Your task to perform on an android device: What's the weather going to be this weekend? Image 0: 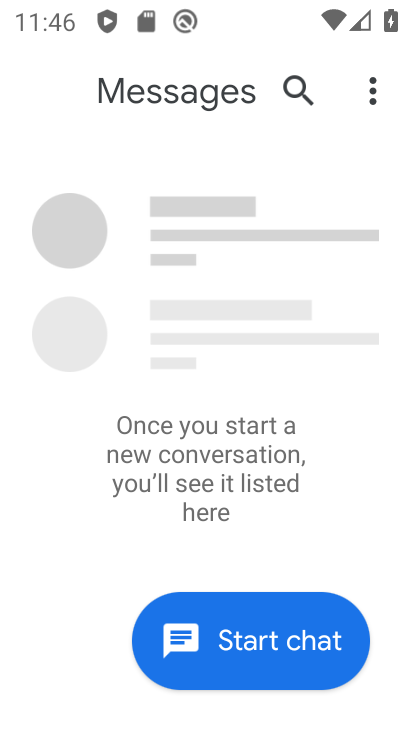
Step 0: press back button
Your task to perform on an android device: What's the weather going to be this weekend? Image 1: 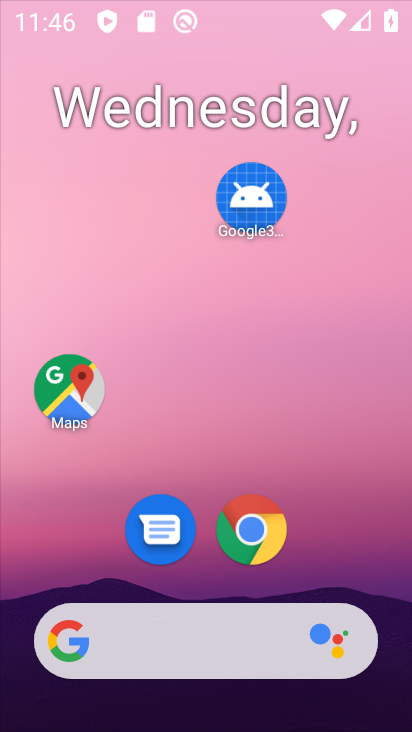
Step 1: press home button
Your task to perform on an android device: What's the weather going to be this weekend? Image 2: 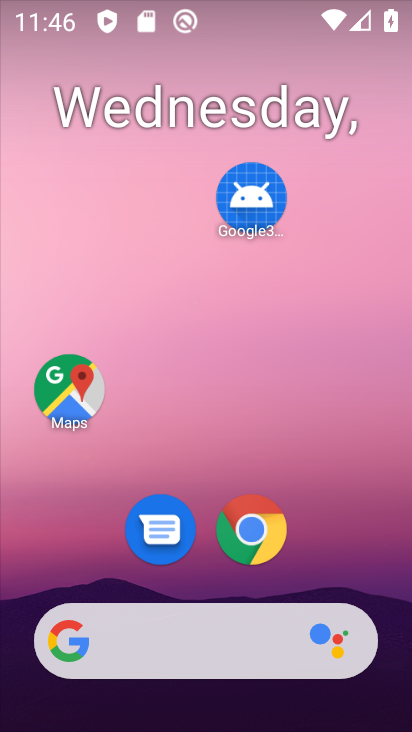
Step 2: drag from (62, 598) to (146, 82)
Your task to perform on an android device: What's the weather going to be this weekend? Image 3: 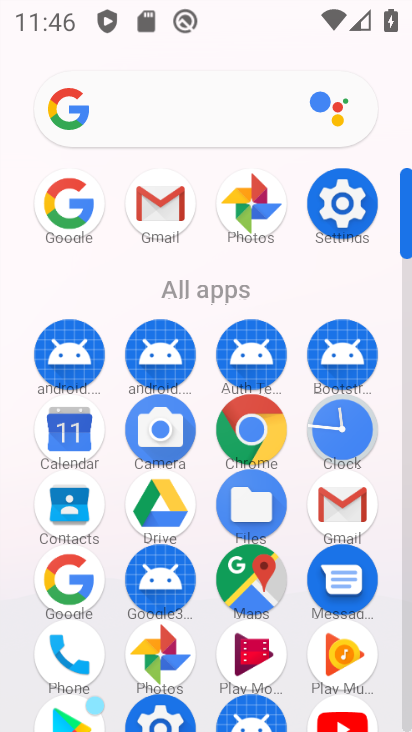
Step 3: click (74, 604)
Your task to perform on an android device: What's the weather going to be this weekend? Image 4: 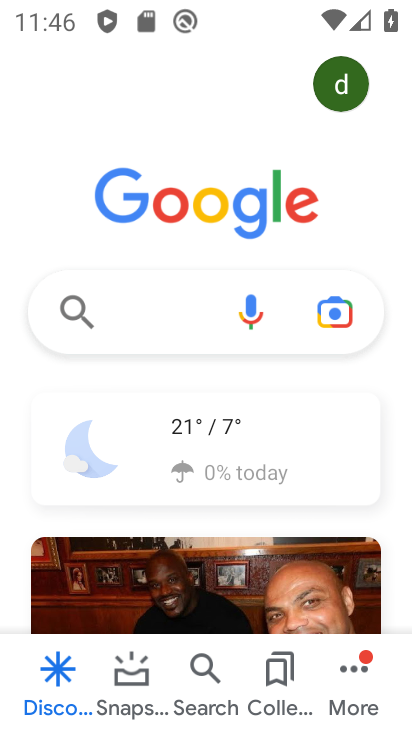
Step 4: click (157, 473)
Your task to perform on an android device: What's the weather going to be this weekend? Image 5: 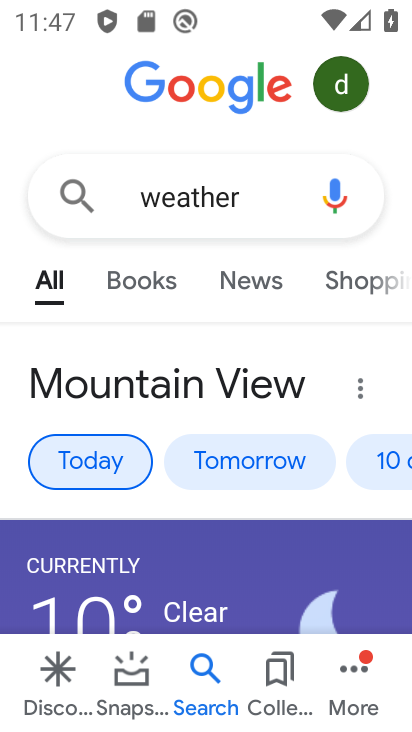
Step 5: drag from (212, 543) to (305, 253)
Your task to perform on an android device: What's the weather going to be this weekend? Image 6: 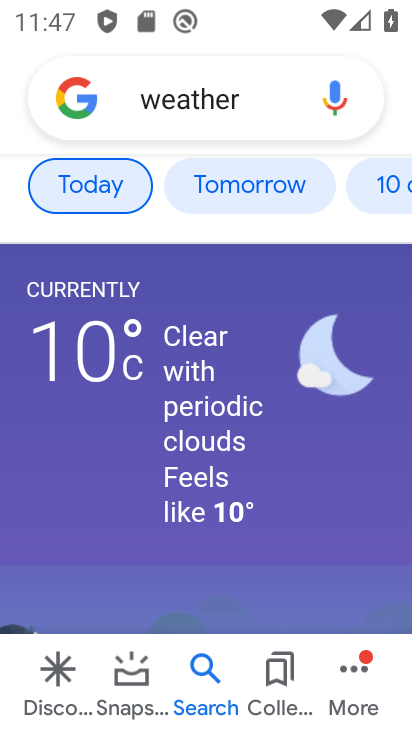
Step 6: drag from (244, 530) to (264, 377)
Your task to perform on an android device: What's the weather going to be this weekend? Image 7: 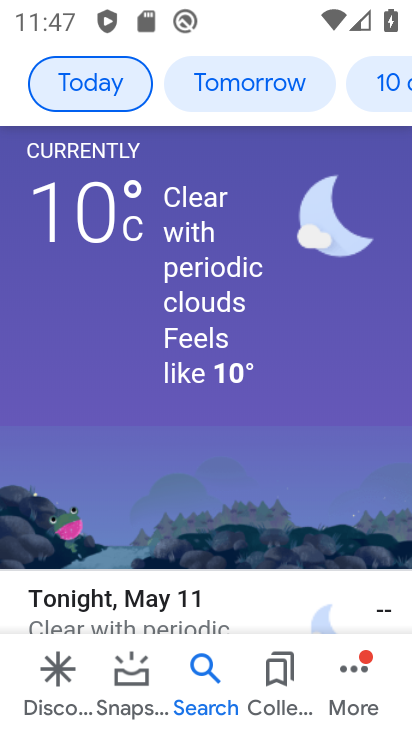
Step 7: click (250, 467)
Your task to perform on an android device: What's the weather going to be this weekend? Image 8: 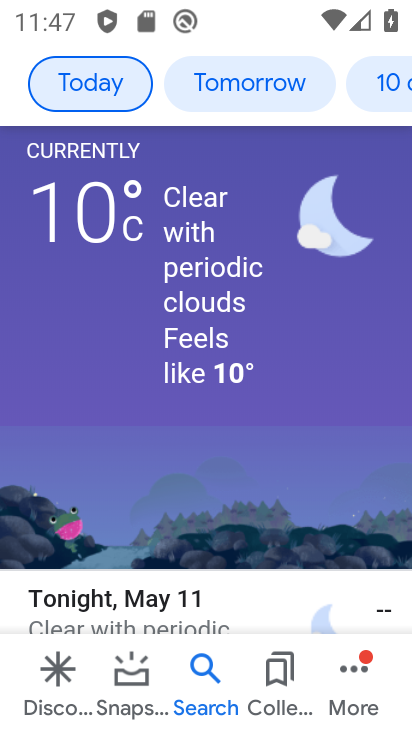
Step 8: drag from (393, 102) to (143, 82)
Your task to perform on an android device: What's the weather going to be this weekend? Image 9: 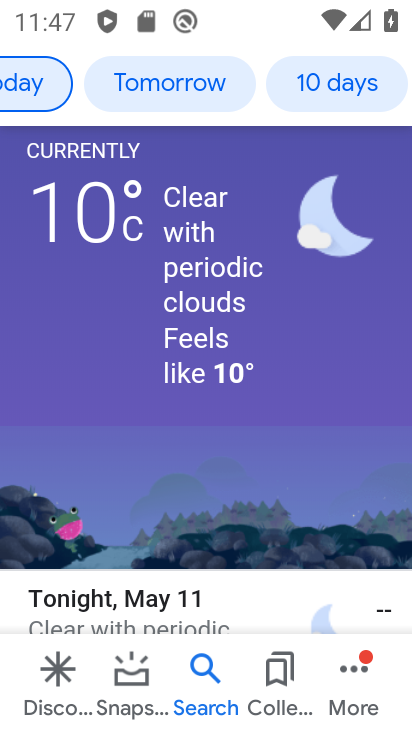
Step 9: click (266, 74)
Your task to perform on an android device: What's the weather going to be this weekend? Image 10: 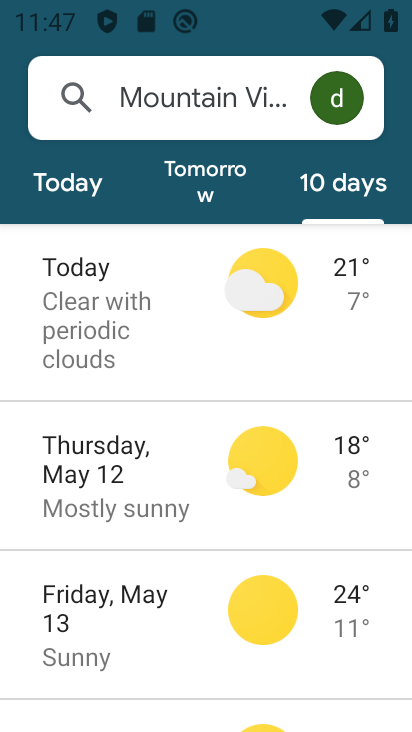
Step 10: task complete